Your task to perform on an android device: Open wifi settings Image 0: 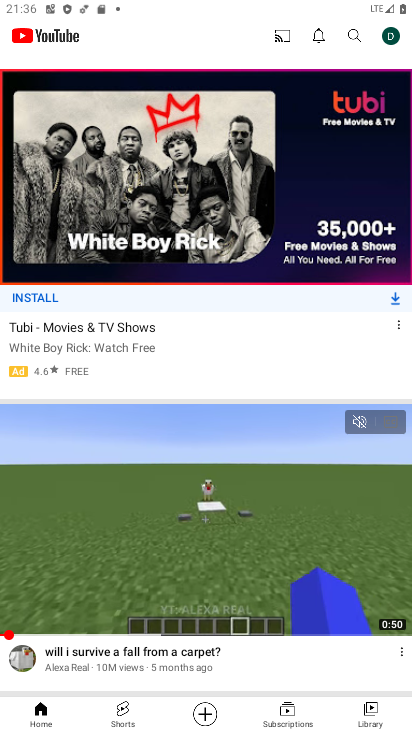
Step 0: press home button
Your task to perform on an android device: Open wifi settings Image 1: 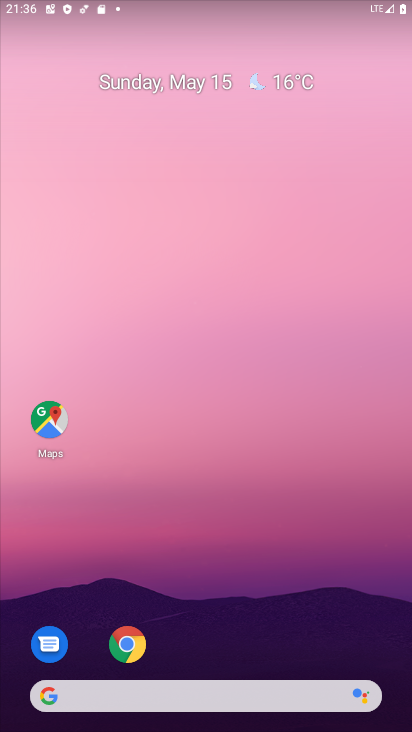
Step 1: drag from (105, 293) to (143, 552)
Your task to perform on an android device: Open wifi settings Image 2: 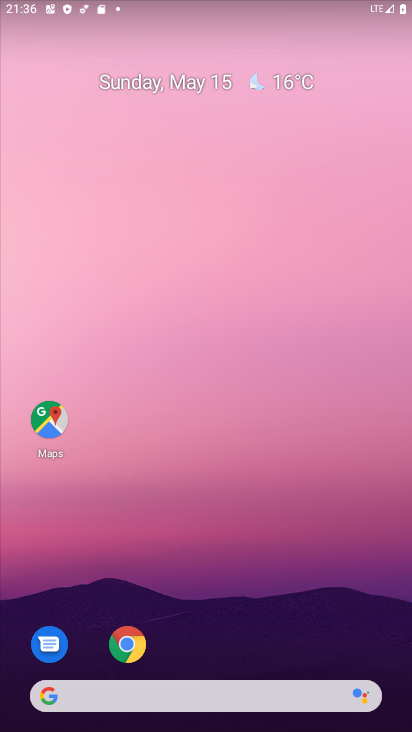
Step 2: drag from (67, 0) to (79, 452)
Your task to perform on an android device: Open wifi settings Image 3: 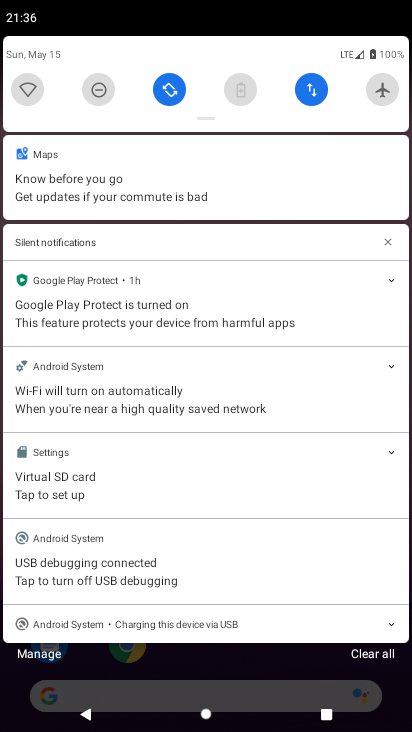
Step 3: click (27, 84)
Your task to perform on an android device: Open wifi settings Image 4: 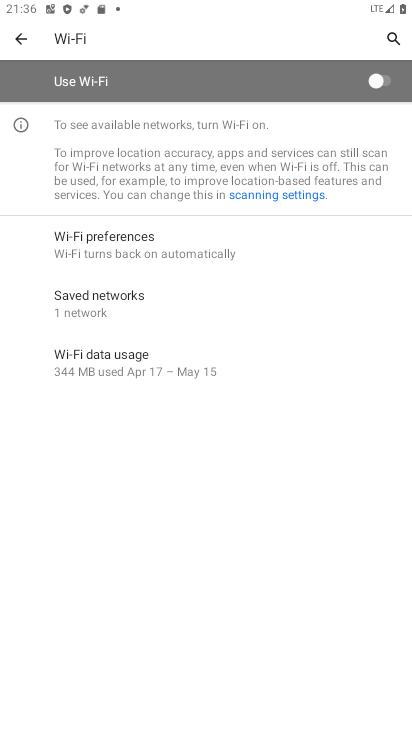
Step 4: task complete